Your task to perform on an android device: toggle notification dots Image 0: 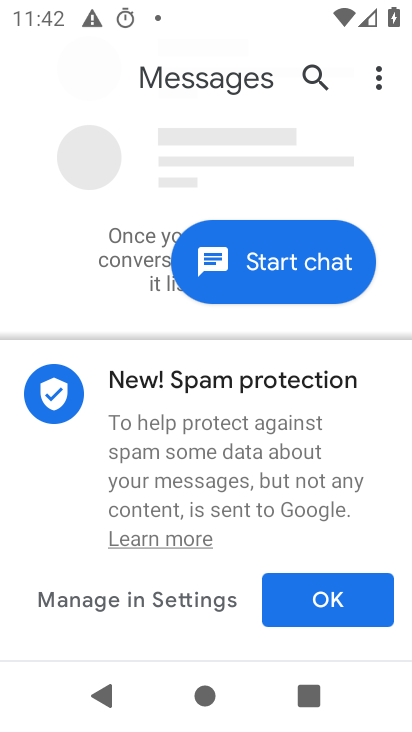
Step 0: press back button
Your task to perform on an android device: toggle notification dots Image 1: 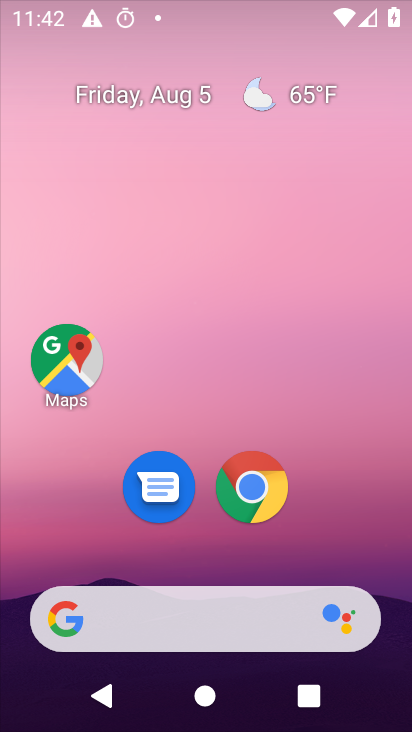
Step 1: click (282, 0)
Your task to perform on an android device: toggle notification dots Image 2: 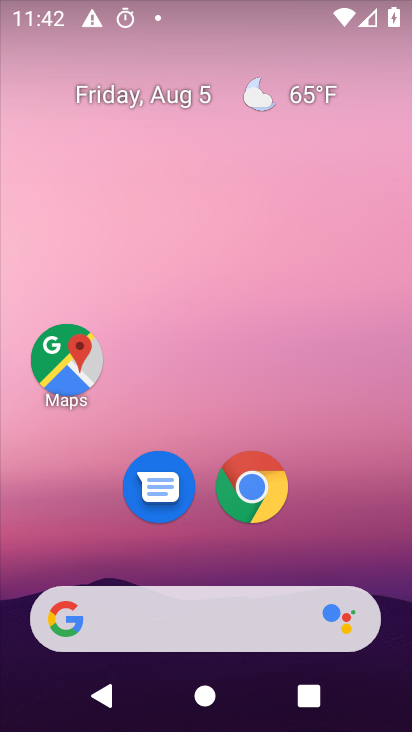
Step 2: drag from (203, 508) to (244, 20)
Your task to perform on an android device: toggle notification dots Image 3: 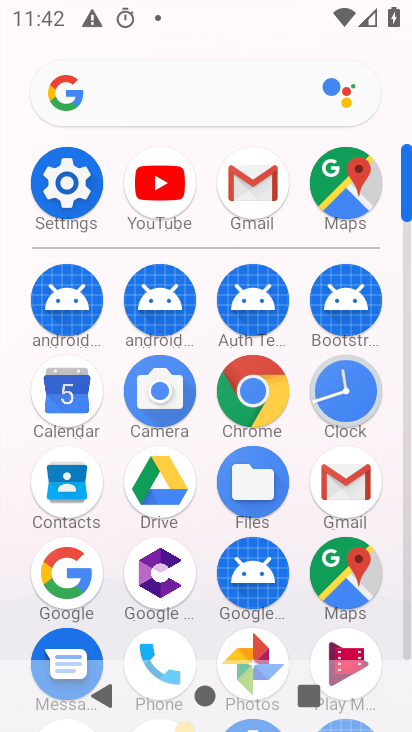
Step 3: click (71, 175)
Your task to perform on an android device: toggle notification dots Image 4: 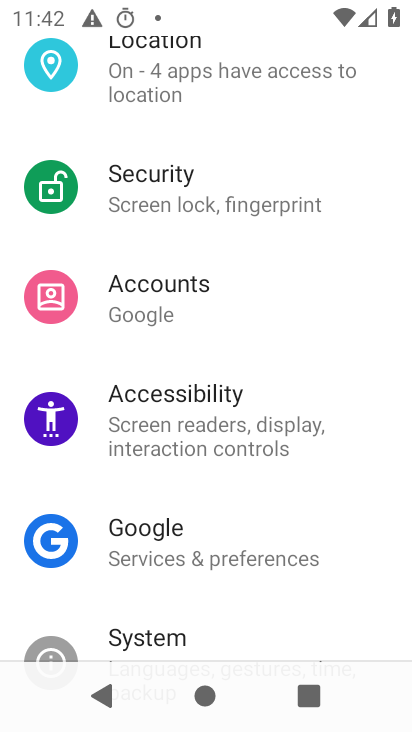
Step 4: drag from (306, 174) to (215, 707)
Your task to perform on an android device: toggle notification dots Image 5: 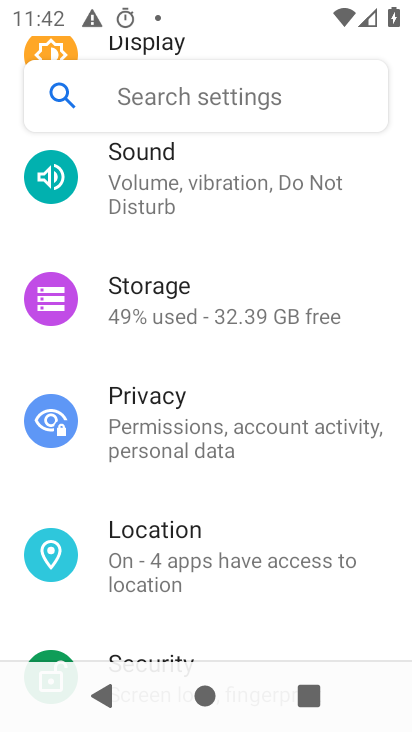
Step 5: drag from (283, 248) to (247, 649)
Your task to perform on an android device: toggle notification dots Image 6: 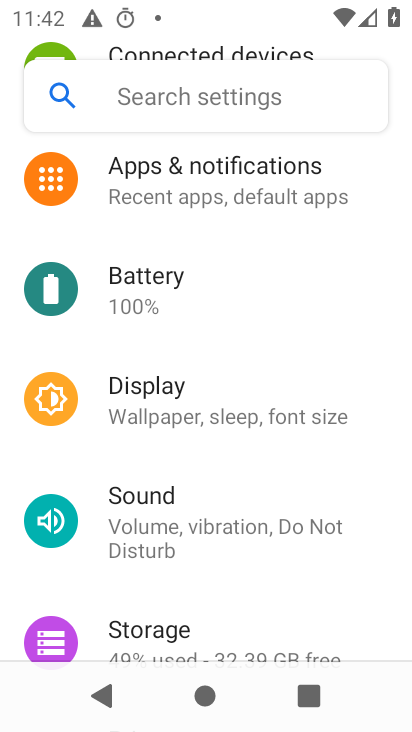
Step 6: click (288, 194)
Your task to perform on an android device: toggle notification dots Image 7: 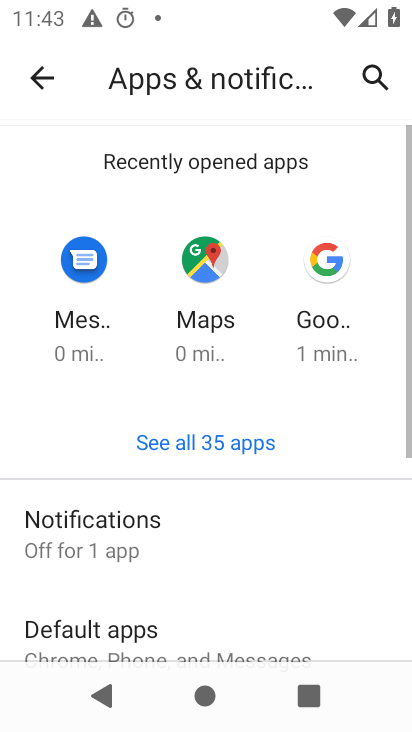
Step 7: click (137, 546)
Your task to perform on an android device: toggle notification dots Image 8: 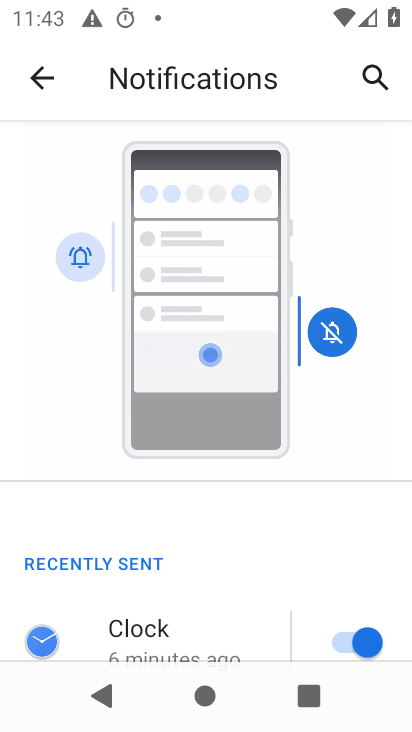
Step 8: drag from (142, 648) to (287, 86)
Your task to perform on an android device: toggle notification dots Image 9: 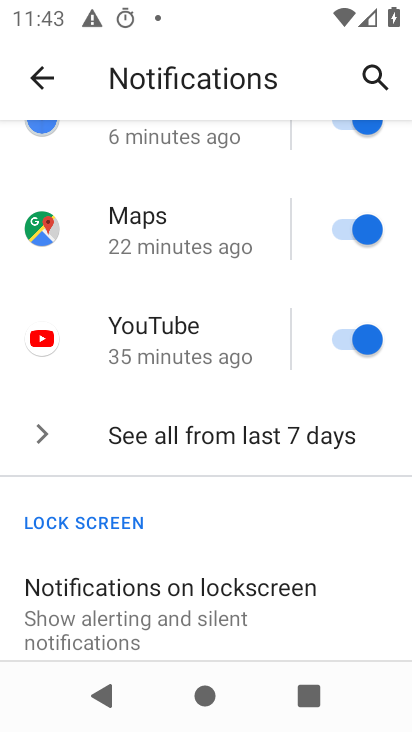
Step 9: drag from (179, 605) to (227, 149)
Your task to perform on an android device: toggle notification dots Image 10: 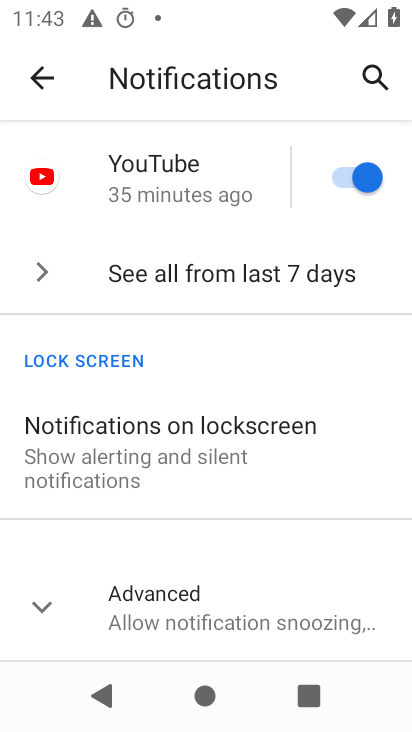
Step 10: click (180, 607)
Your task to perform on an android device: toggle notification dots Image 11: 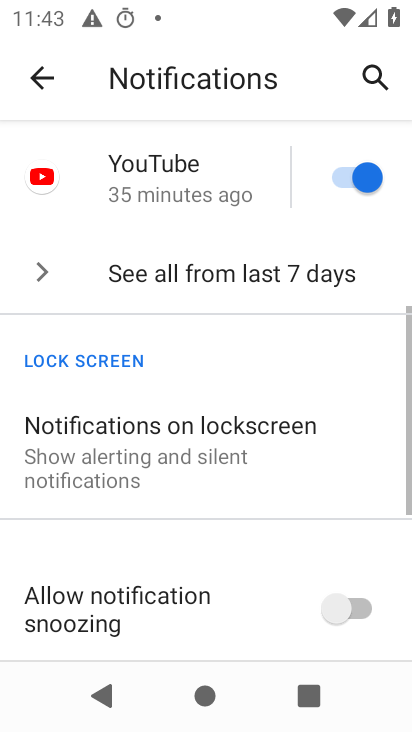
Step 11: drag from (189, 611) to (241, 134)
Your task to perform on an android device: toggle notification dots Image 12: 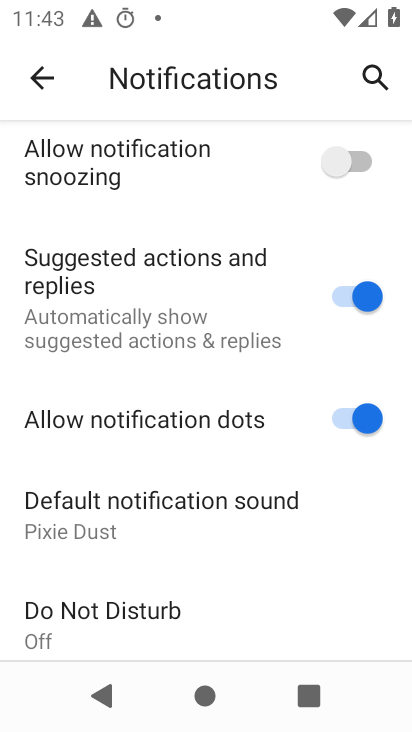
Step 12: click (364, 424)
Your task to perform on an android device: toggle notification dots Image 13: 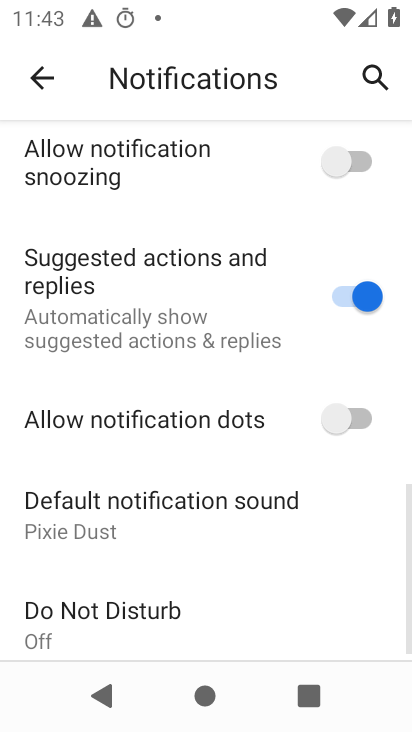
Step 13: task complete